Your task to perform on an android device: turn on javascript in the chrome app Image 0: 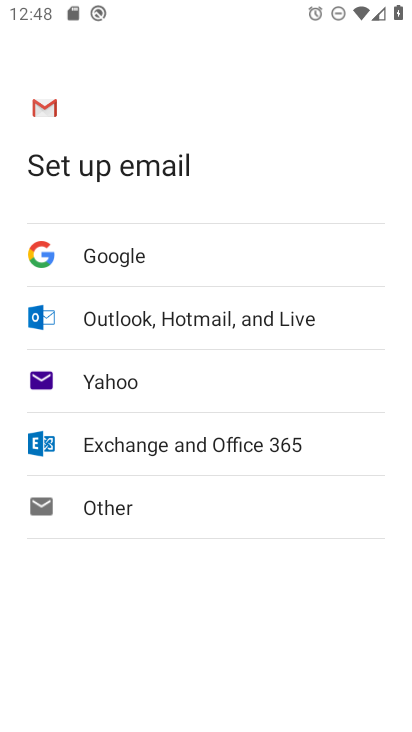
Step 0: press home button
Your task to perform on an android device: turn on javascript in the chrome app Image 1: 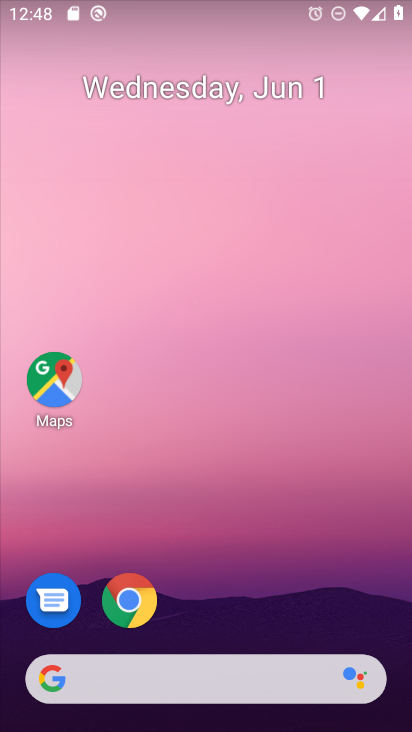
Step 1: click (126, 597)
Your task to perform on an android device: turn on javascript in the chrome app Image 2: 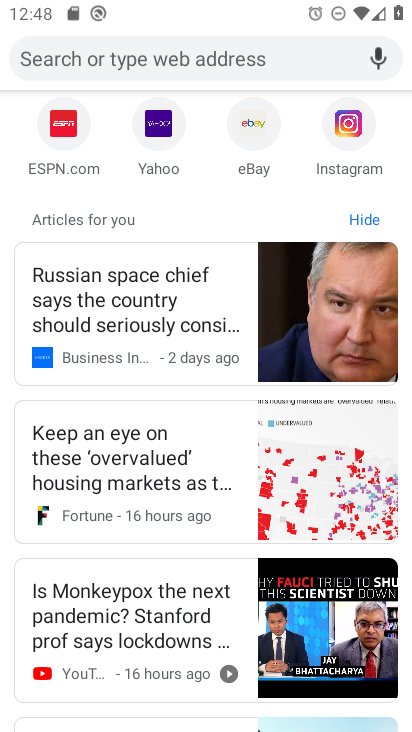
Step 2: drag from (219, 198) to (242, 726)
Your task to perform on an android device: turn on javascript in the chrome app Image 3: 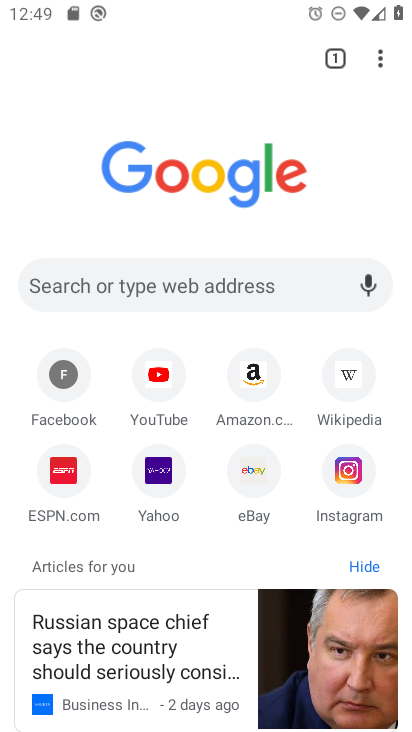
Step 3: click (382, 55)
Your task to perform on an android device: turn on javascript in the chrome app Image 4: 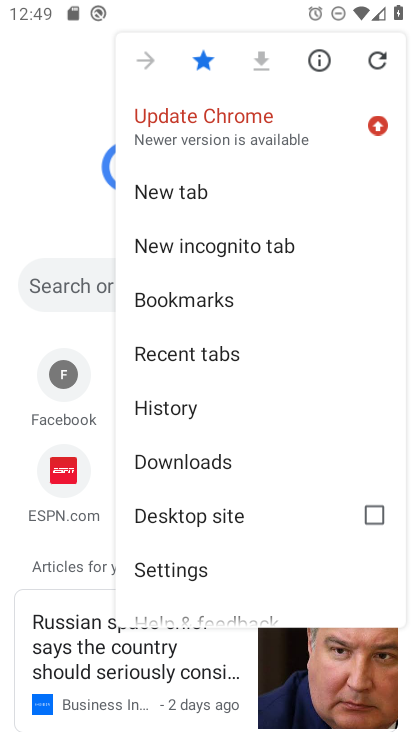
Step 4: click (222, 565)
Your task to perform on an android device: turn on javascript in the chrome app Image 5: 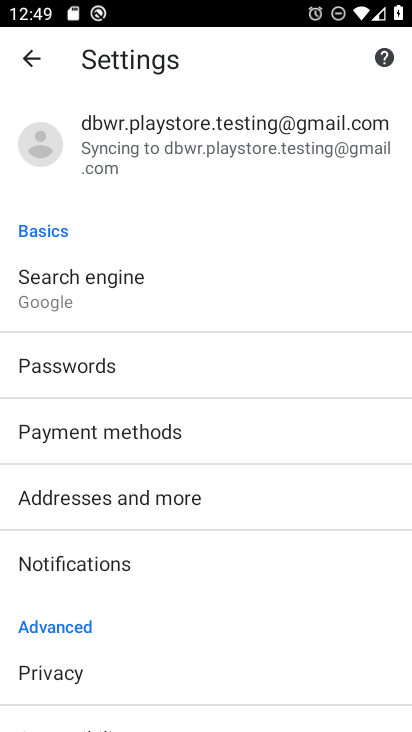
Step 5: drag from (199, 602) to (216, 31)
Your task to perform on an android device: turn on javascript in the chrome app Image 6: 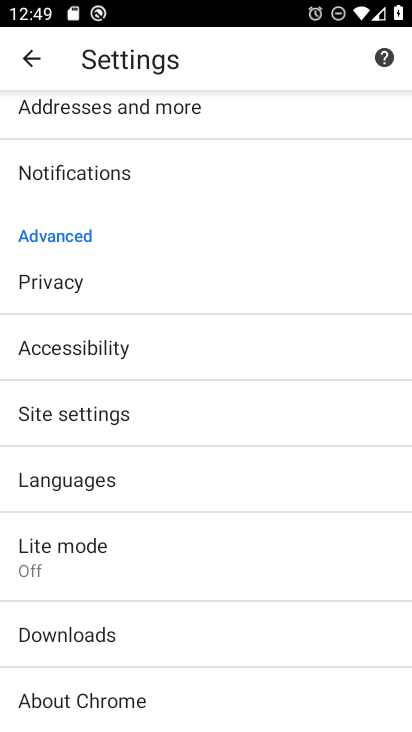
Step 6: click (147, 410)
Your task to perform on an android device: turn on javascript in the chrome app Image 7: 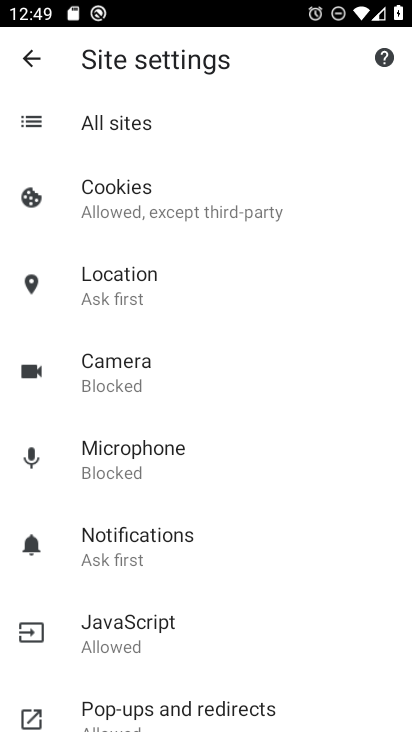
Step 7: click (174, 634)
Your task to perform on an android device: turn on javascript in the chrome app Image 8: 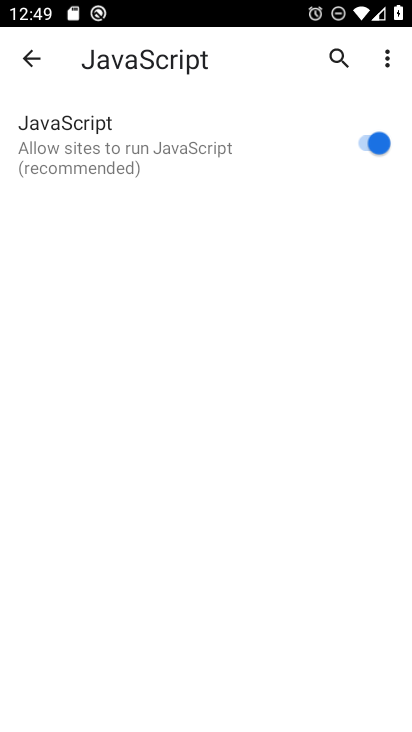
Step 8: task complete